Your task to perform on an android device: Search for 3d printer on AliExpress Image 0: 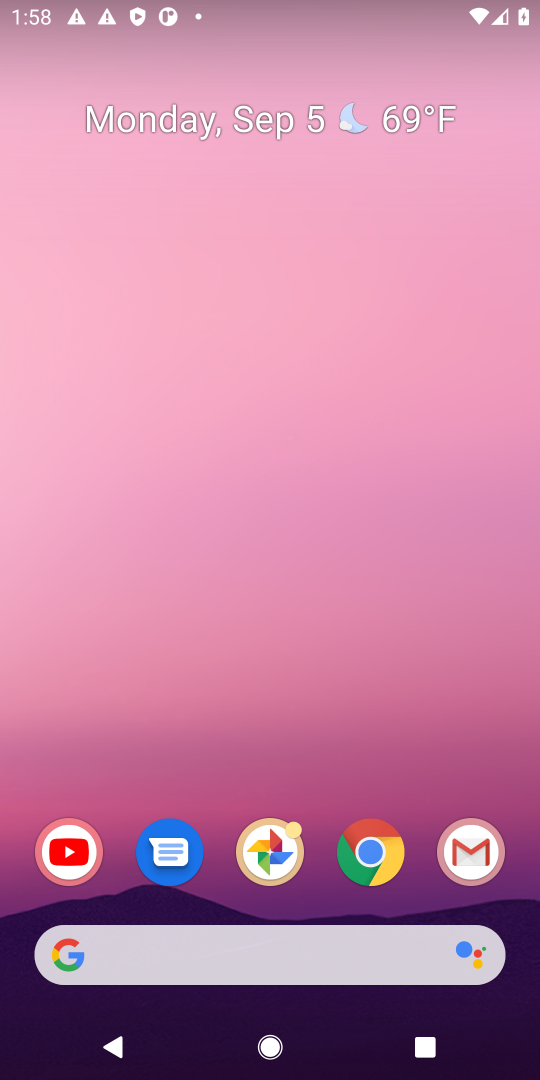
Step 0: click (372, 853)
Your task to perform on an android device: Search for 3d printer on AliExpress Image 1: 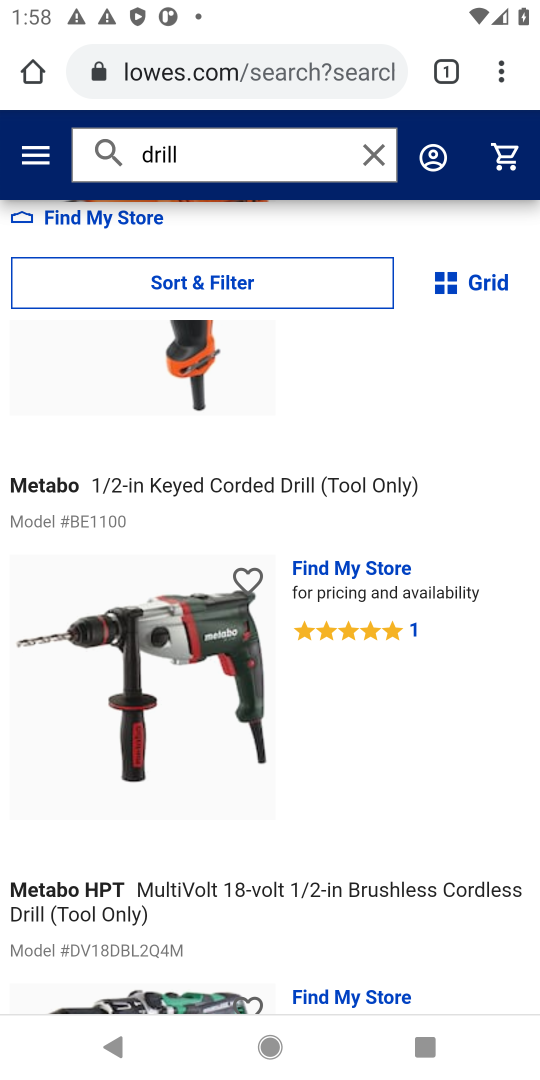
Step 1: click (298, 48)
Your task to perform on an android device: Search for 3d printer on AliExpress Image 2: 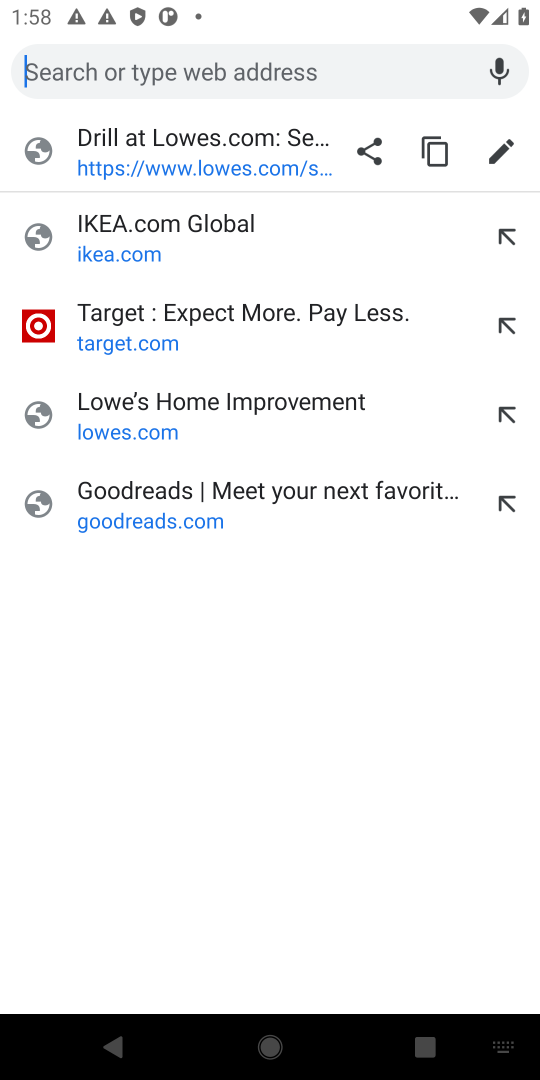
Step 2: type "Aliexpress"
Your task to perform on an android device: Search for 3d printer on AliExpress Image 3: 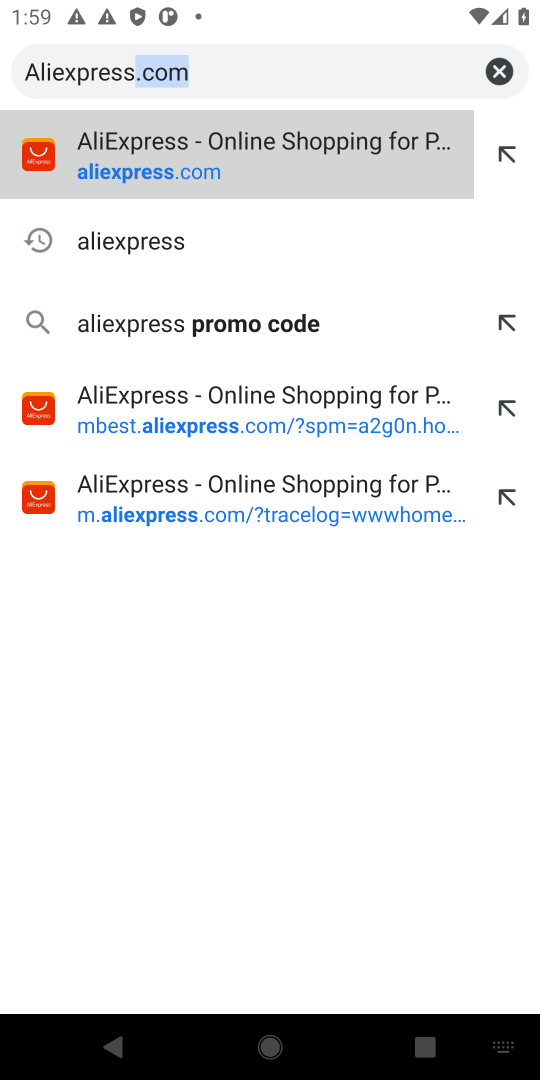
Step 3: click (121, 140)
Your task to perform on an android device: Search for 3d printer on AliExpress Image 4: 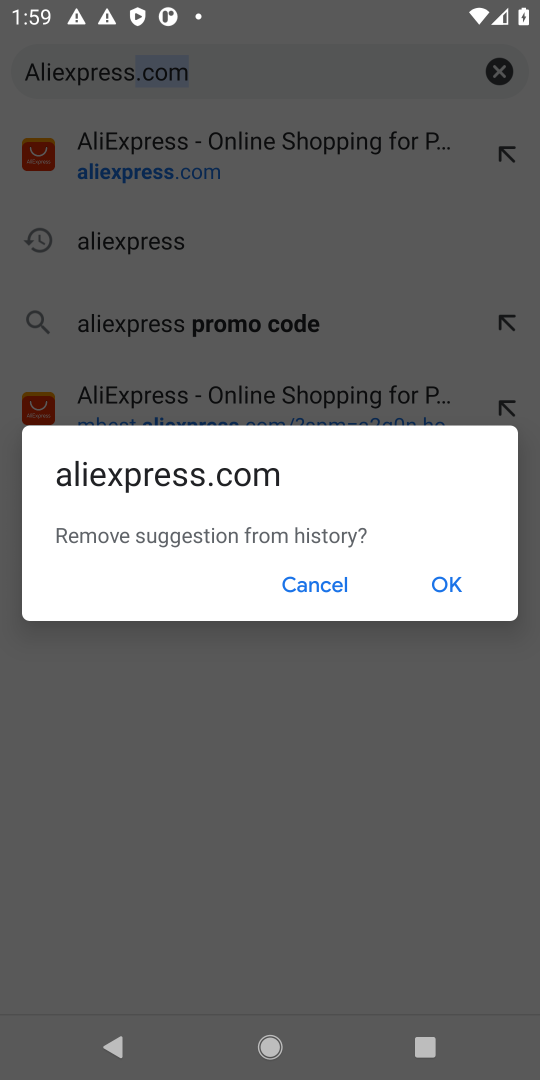
Step 4: click (306, 578)
Your task to perform on an android device: Search for 3d printer on AliExpress Image 5: 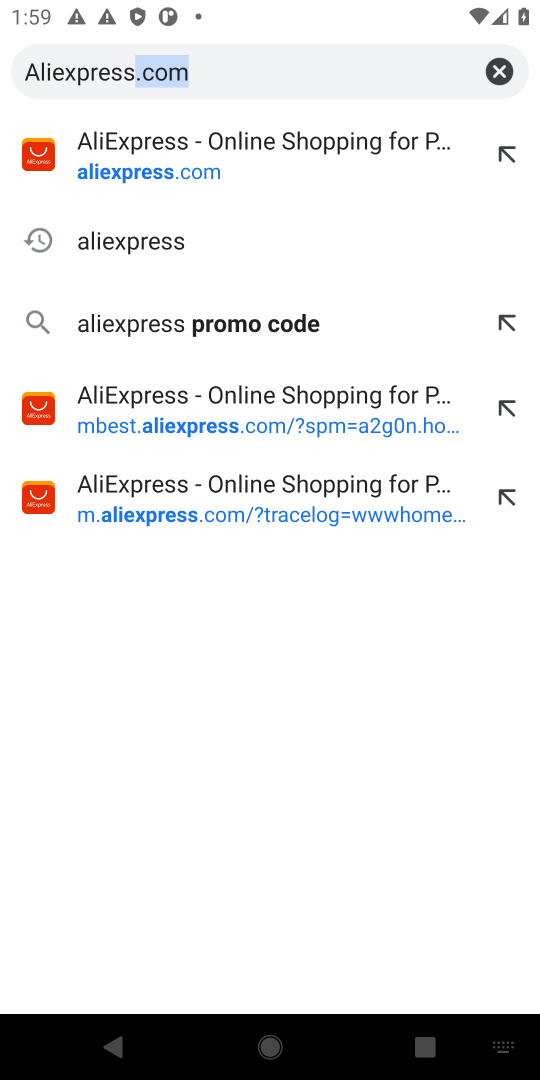
Step 5: click (143, 393)
Your task to perform on an android device: Search for 3d printer on AliExpress Image 6: 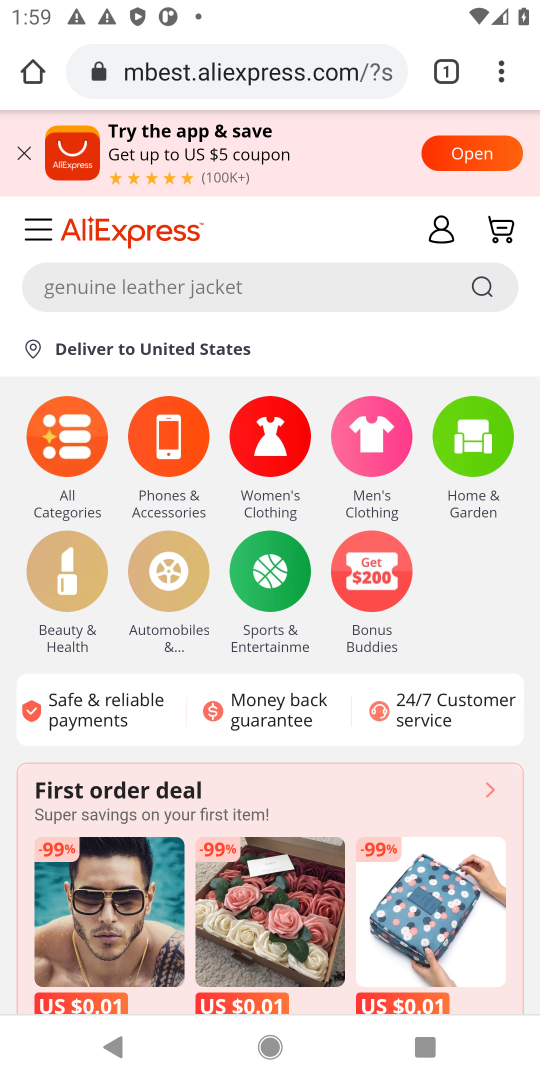
Step 6: click (164, 275)
Your task to perform on an android device: Search for 3d printer on AliExpress Image 7: 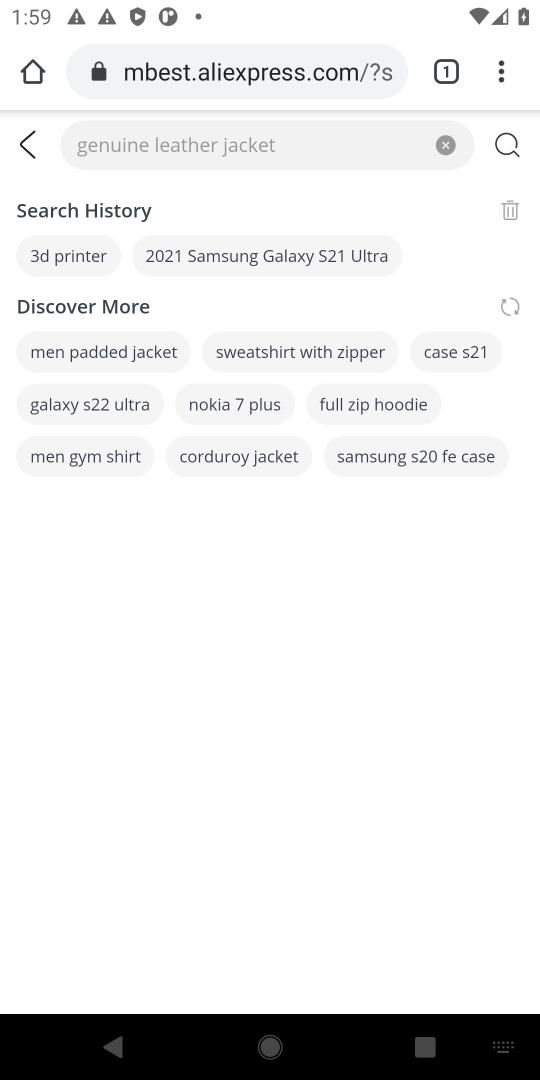
Step 7: type " 3d printer"
Your task to perform on an android device: Search for 3d printer on AliExpress Image 8: 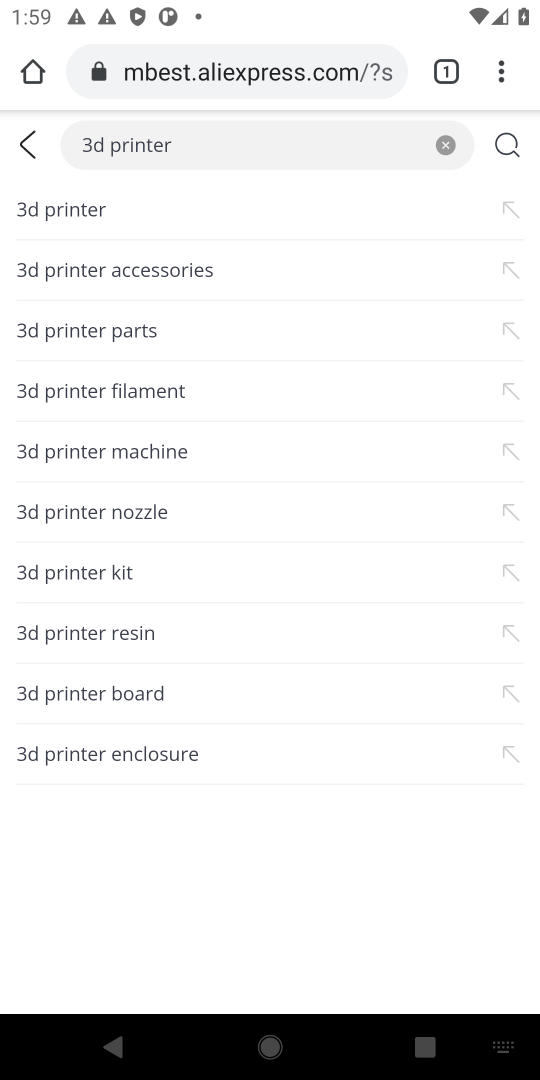
Step 8: click (71, 209)
Your task to perform on an android device: Search for 3d printer on AliExpress Image 9: 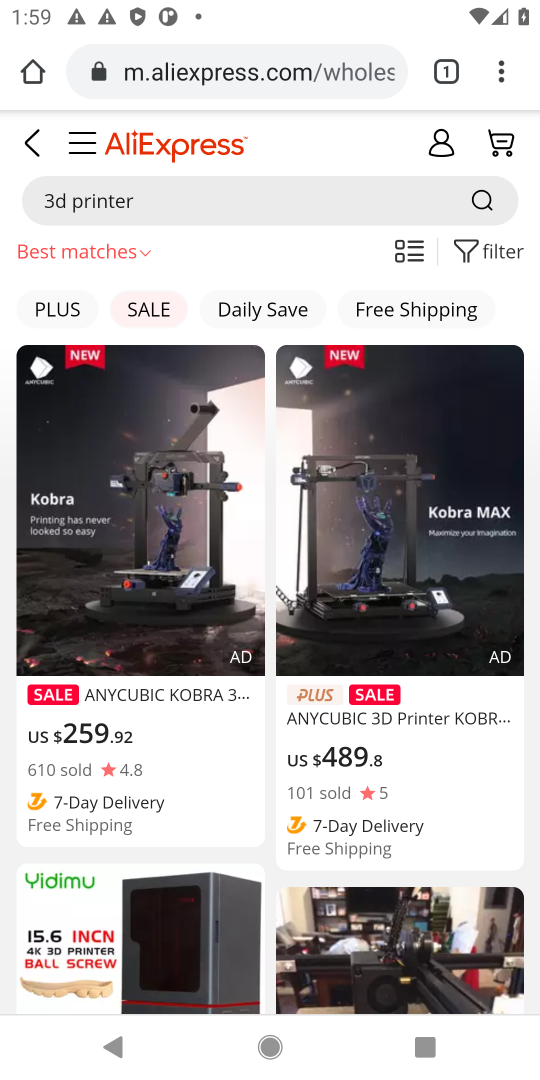
Step 9: drag from (266, 854) to (249, 306)
Your task to perform on an android device: Search for 3d printer on AliExpress Image 10: 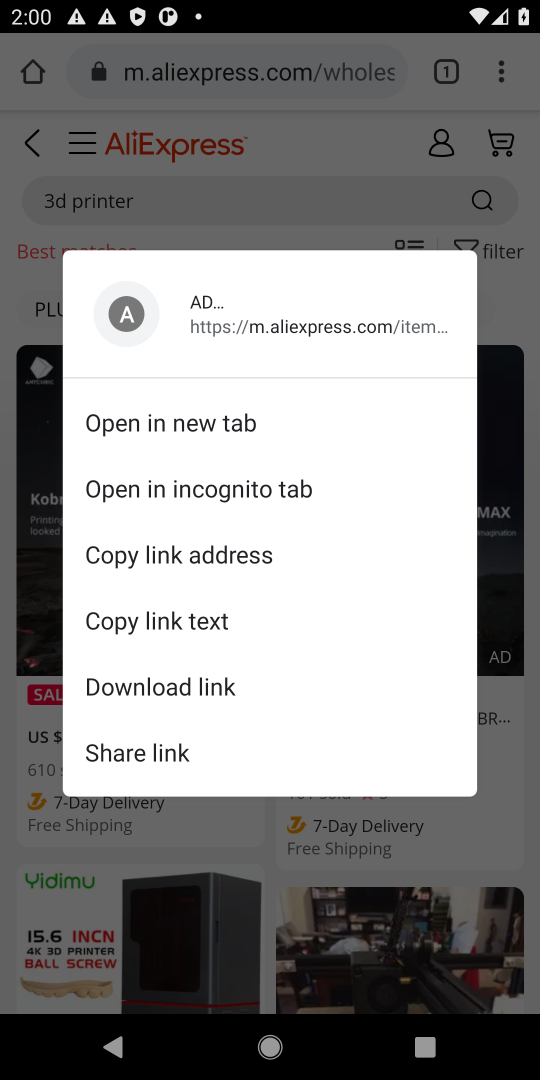
Step 10: click (273, 870)
Your task to perform on an android device: Search for 3d printer on AliExpress Image 11: 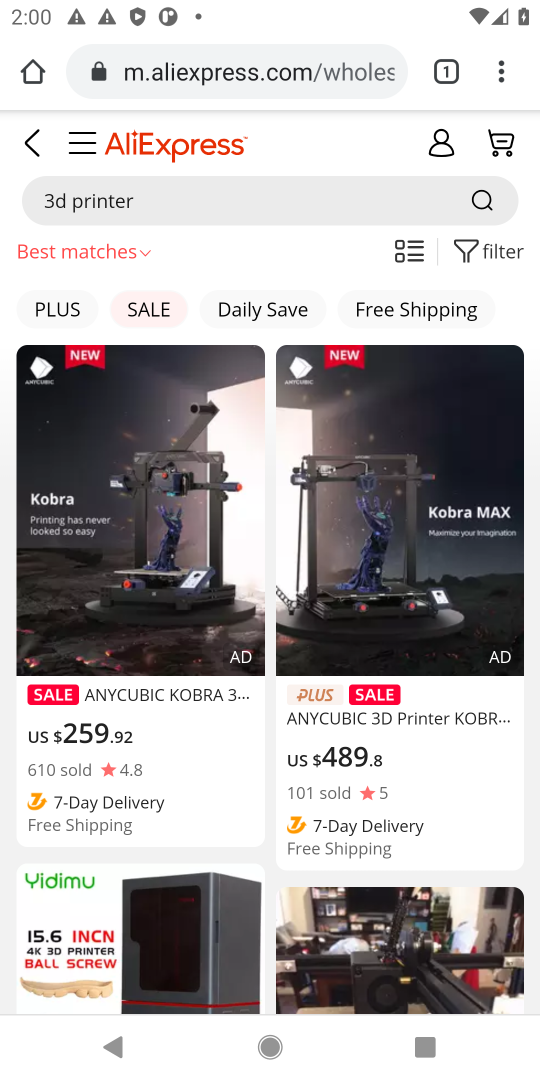
Step 11: task complete